Your task to perform on an android device: add a contact in the contacts app Image 0: 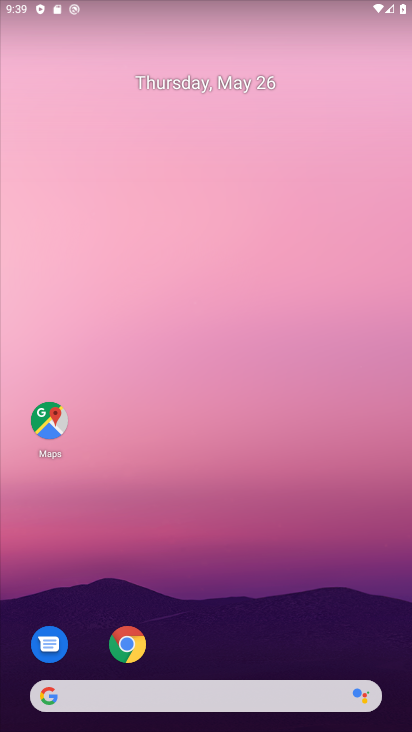
Step 0: drag from (212, 654) to (224, 236)
Your task to perform on an android device: add a contact in the contacts app Image 1: 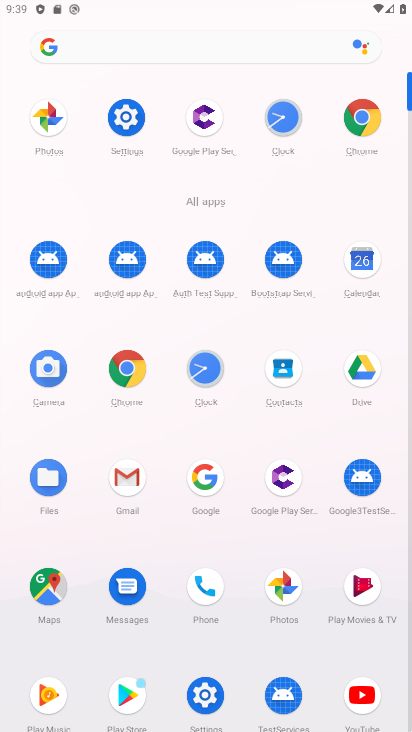
Step 1: click (274, 376)
Your task to perform on an android device: add a contact in the contacts app Image 2: 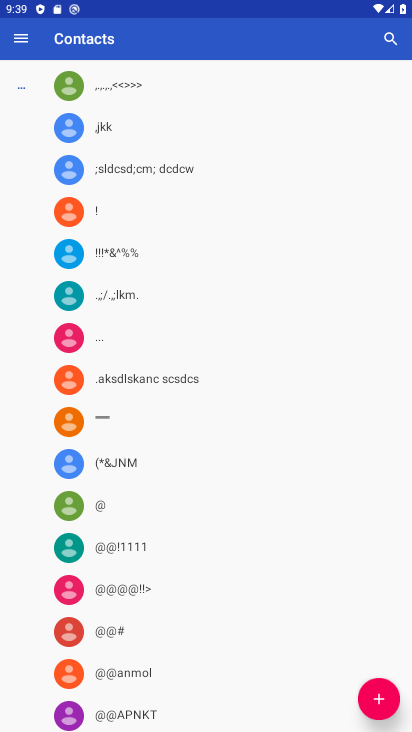
Step 2: click (379, 691)
Your task to perform on an android device: add a contact in the contacts app Image 3: 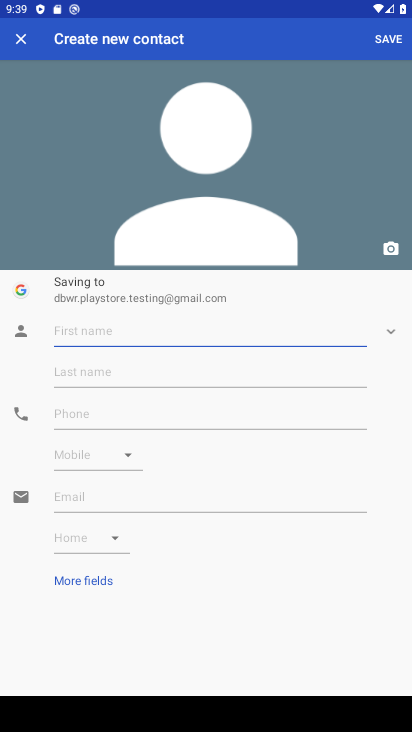
Step 3: type "zdvfdgf"
Your task to perform on an android device: add a contact in the contacts app Image 4: 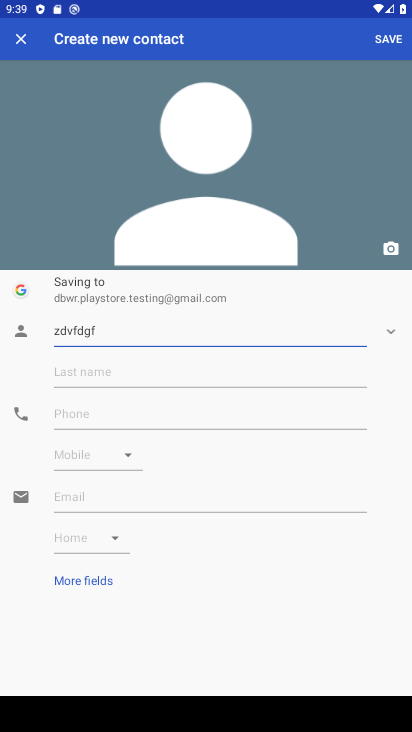
Step 4: click (146, 409)
Your task to perform on an android device: add a contact in the contacts app Image 5: 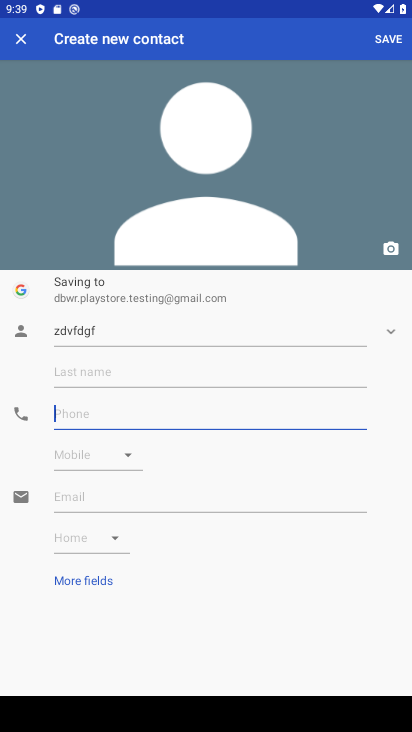
Step 5: type "9568566565"
Your task to perform on an android device: add a contact in the contacts app Image 6: 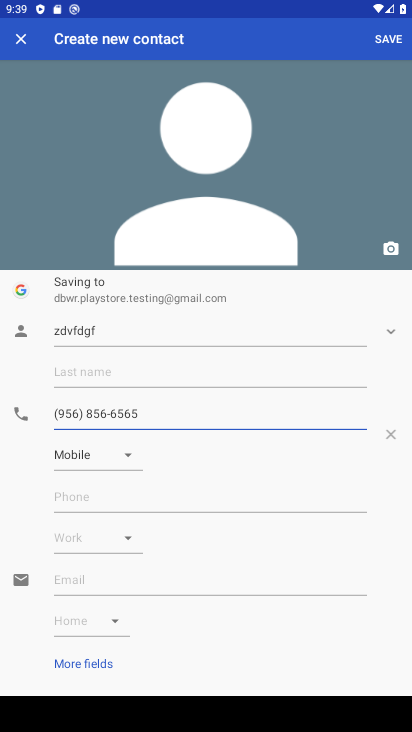
Step 6: click (380, 34)
Your task to perform on an android device: add a contact in the contacts app Image 7: 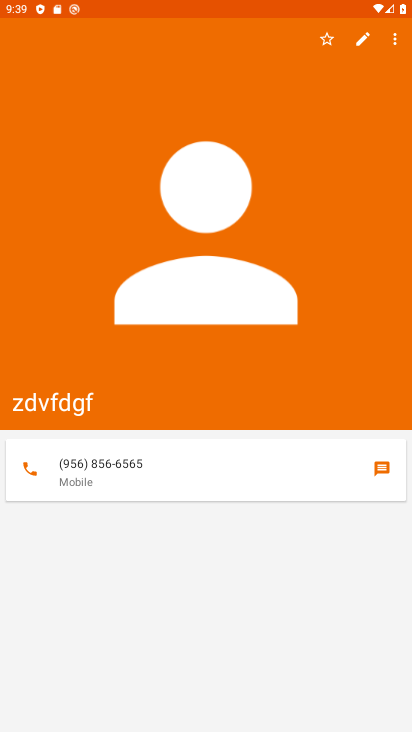
Step 7: task complete